Your task to perform on an android device: Go to calendar. Show me events next week Image 0: 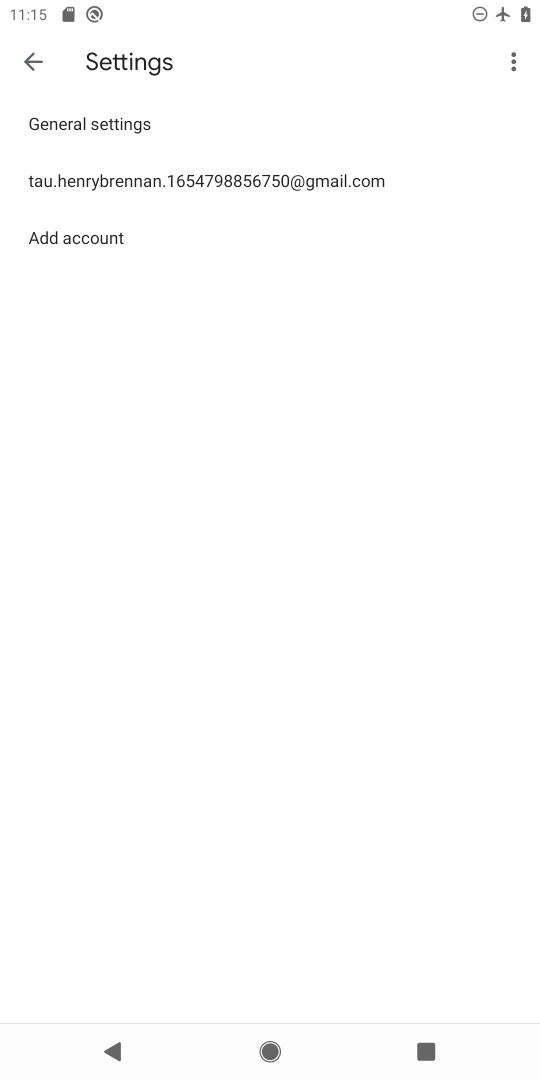
Step 0: press home button
Your task to perform on an android device: Go to calendar. Show me events next week Image 1: 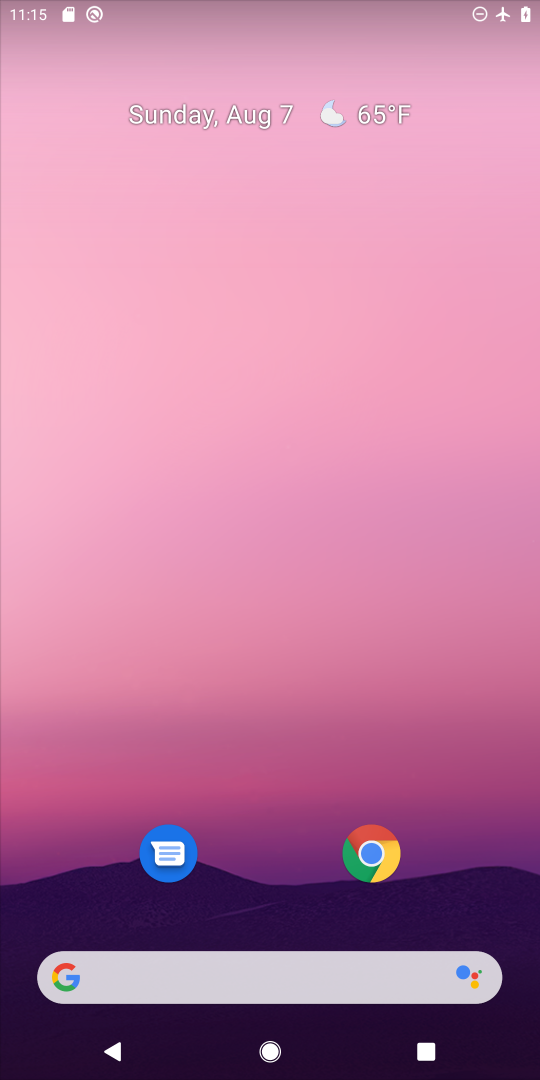
Step 1: drag from (310, 1016) to (311, 87)
Your task to perform on an android device: Go to calendar. Show me events next week Image 2: 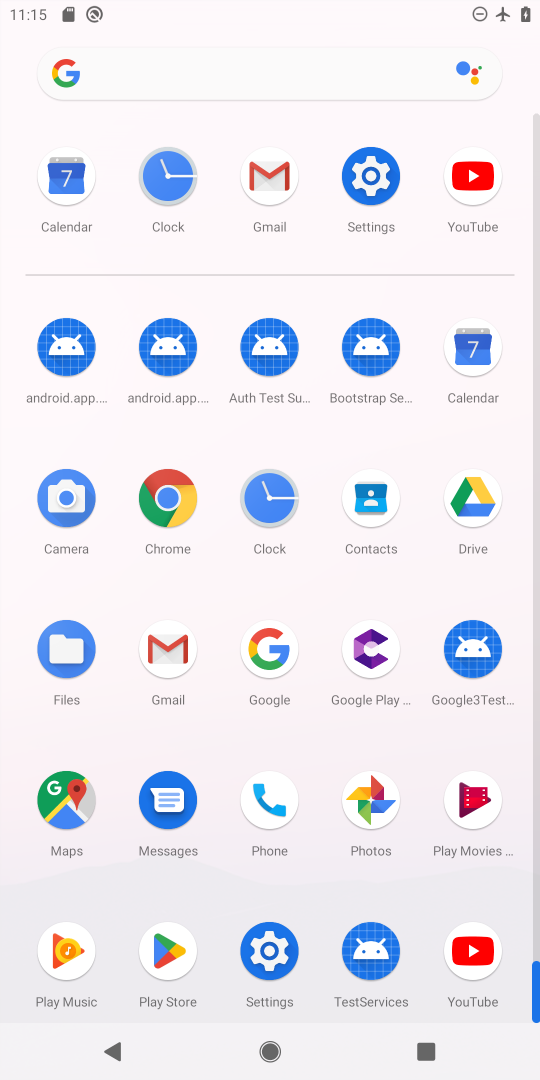
Step 2: click (469, 347)
Your task to perform on an android device: Go to calendar. Show me events next week Image 3: 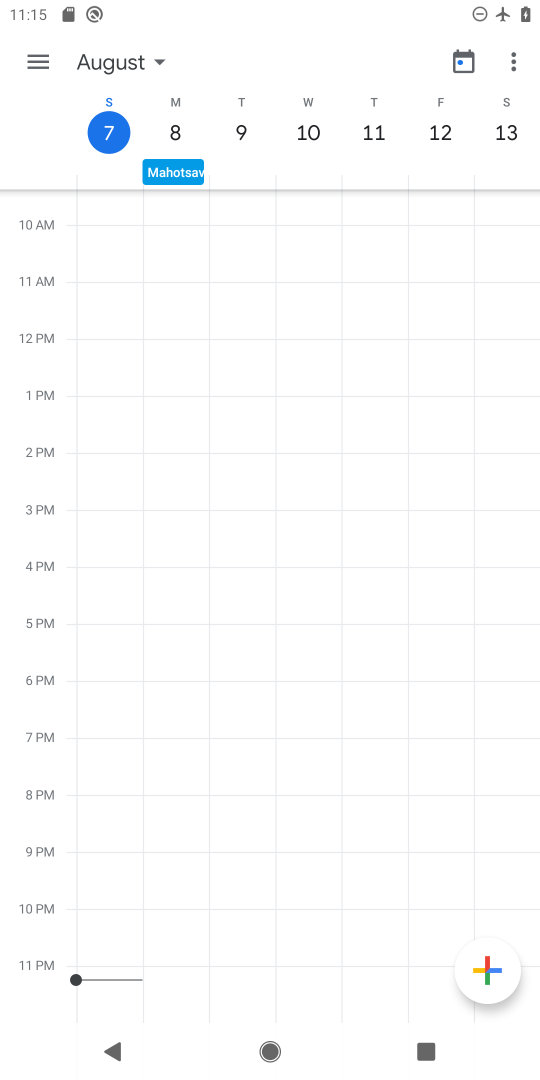
Step 3: task complete